Your task to perform on an android device: check android version Image 0: 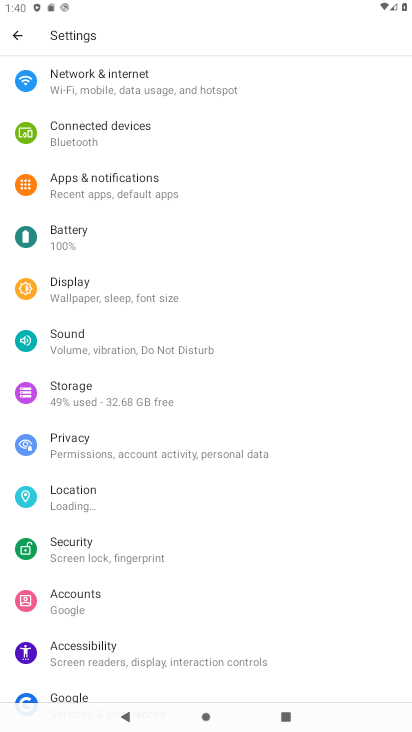
Step 0: drag from (254, 639) to (300, 124)
Your task to perform on an android device: check android version Image 1: 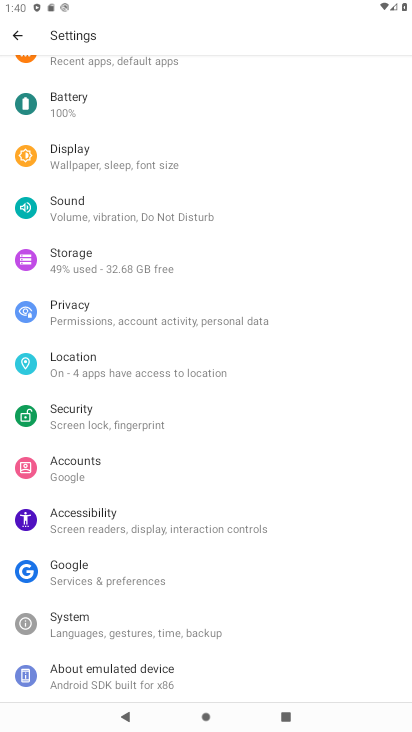
Step 1: click (246, 675)
Your task to perform on an android device: check android version Image 2: 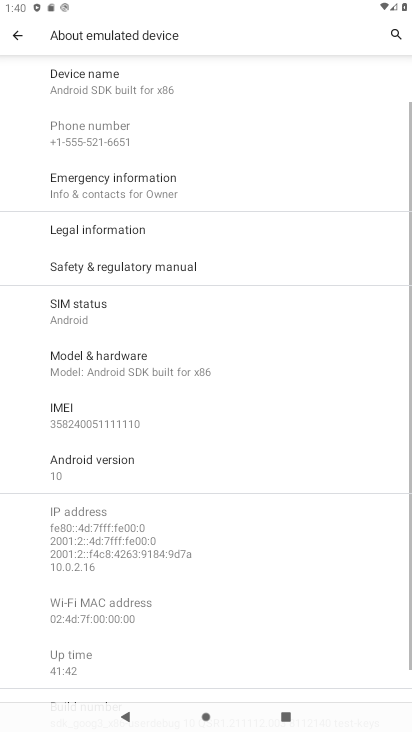
Step 2: click (192, 478)
Your task to perform on an android device: check android version Image 3: 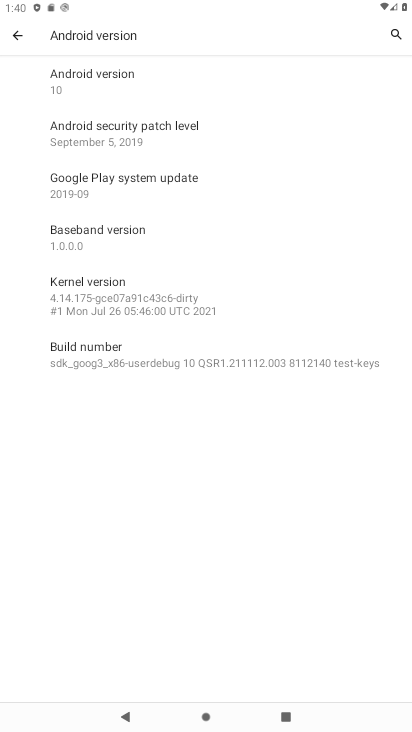
Step 3: task complete